Your task to perform on an android device: Do I have any events today? Image 0: 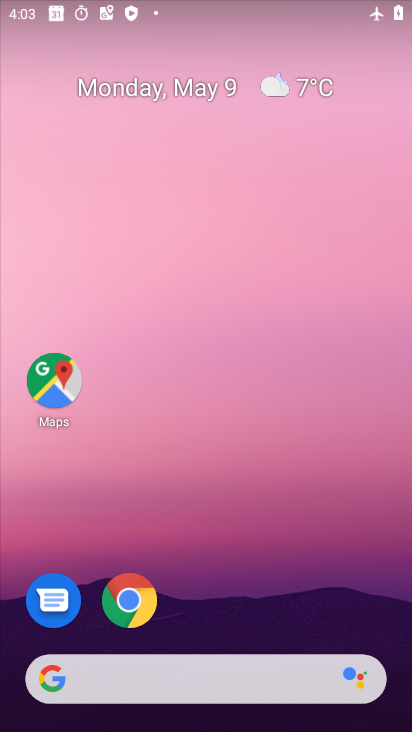
Step 0: drag from (334, 549) to (201, 41)
Your task to perform on an android device: Do I have any events today? Image 1: 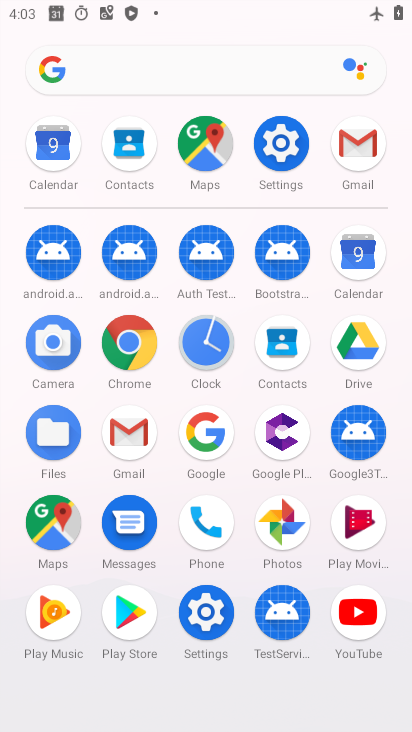
Step 1: click (346, 257)
Your task to perform on an android device: Do I have any events today? Image 2: 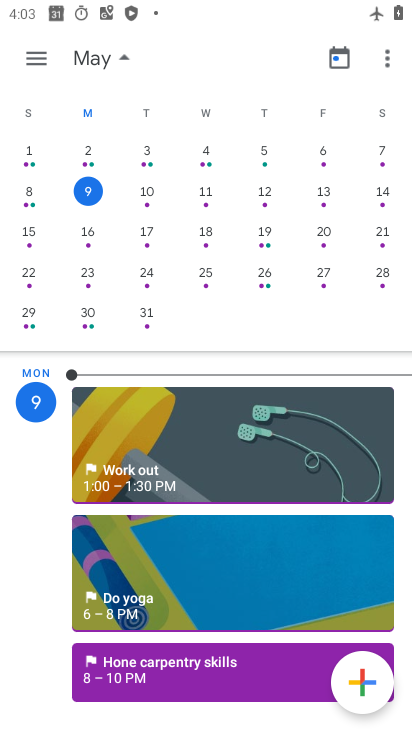
Step 2: click (149, 186)
Your task to perform on an android device: Do I have any events today? Image 3: 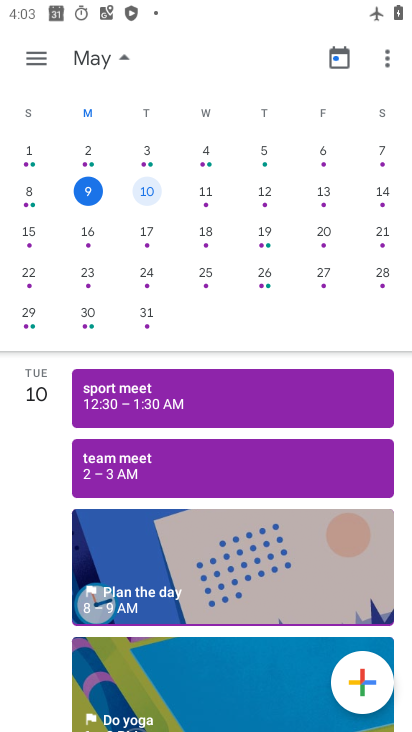
Step 3: click (84, 188)
Your task to perform on an android device: Do I have any events today? Image 4: 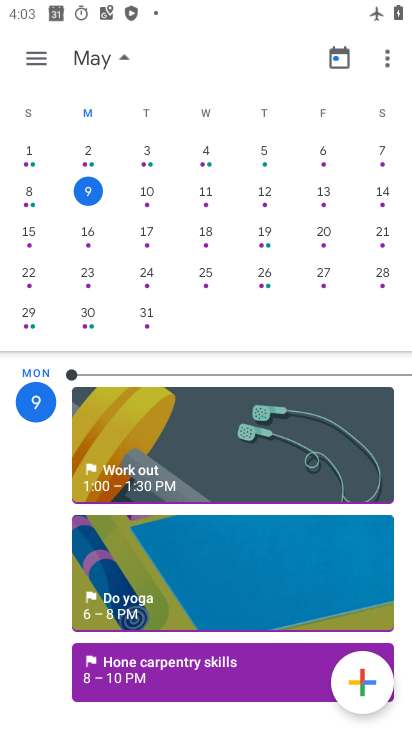
Step 4: task complete